Your task to perform on an android device: Open my contact list Image 0: 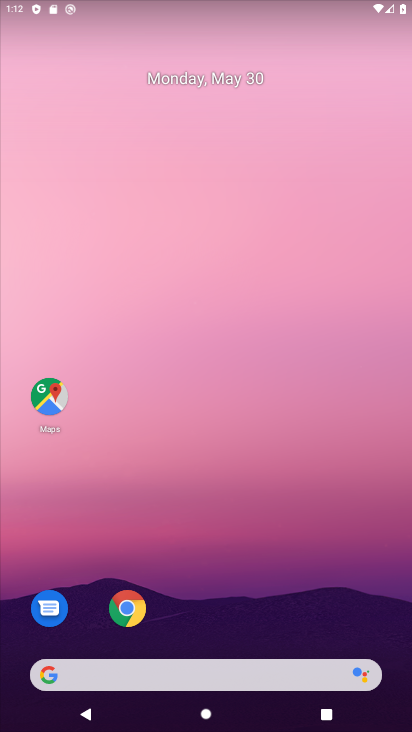
Step 0: drag from (167, 558) to (217, 166)
Your task to perform on an android device: Open my contact list Image 1: 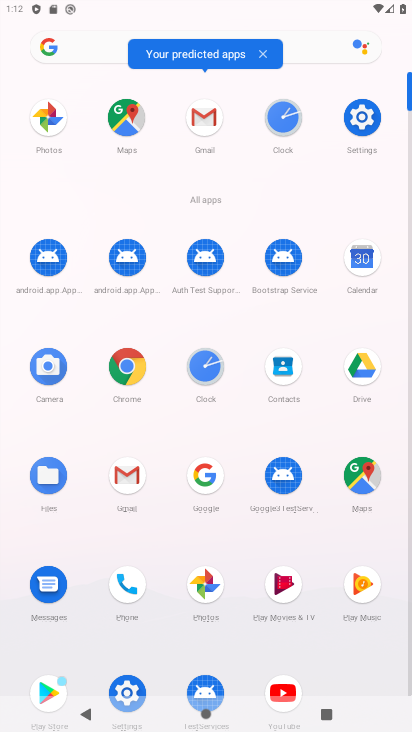
Step 1: click (133, 582)
Your task to perform on an android device: Open my contact list Image 2: 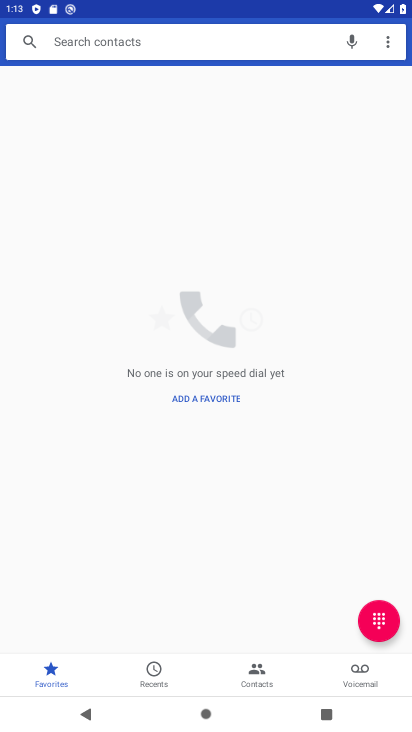
Step 2: click (261, 670)
Your task to perform on an android device: Open my contact list Image 3: 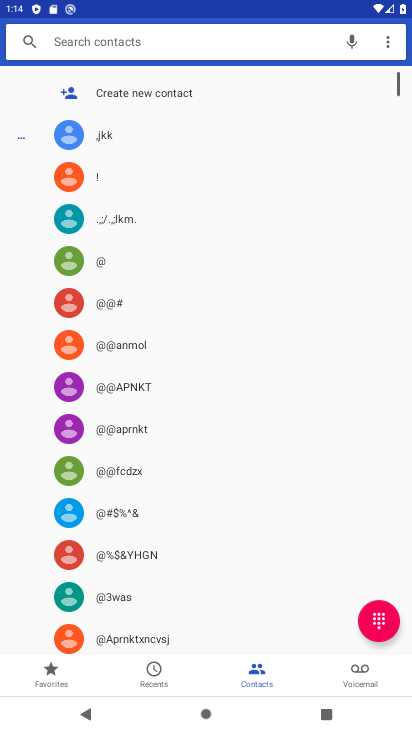
Step 3: task complete